Your task to perform on an android device: Open notification settings Image 0: 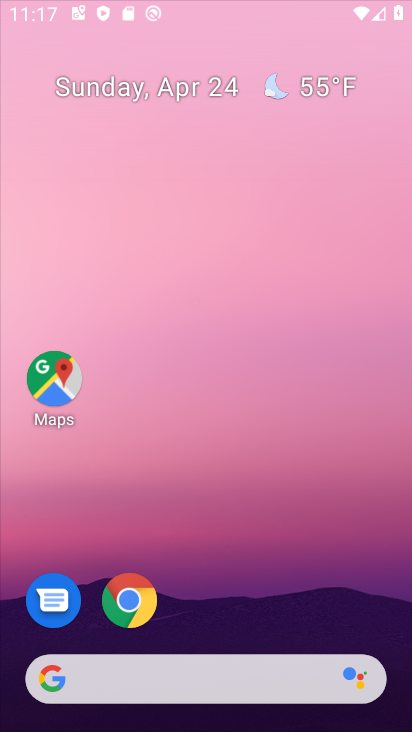
Step 0: click (225, 675)
Your task to perform on an android device: Open notification settings Image 1: 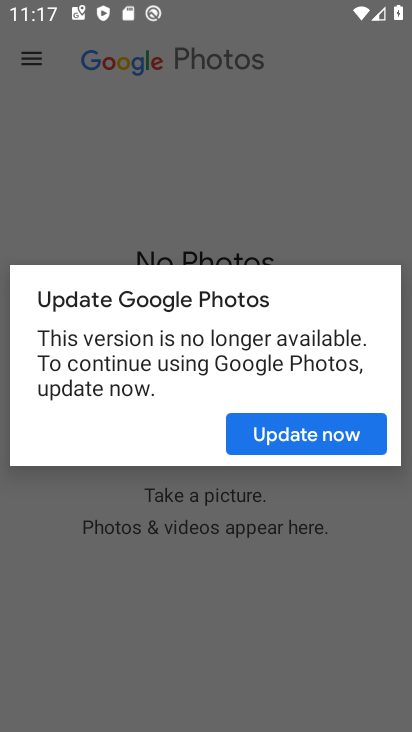
Step 1: press home button
Your task to perform on an android device: Open notification settings Image 2: 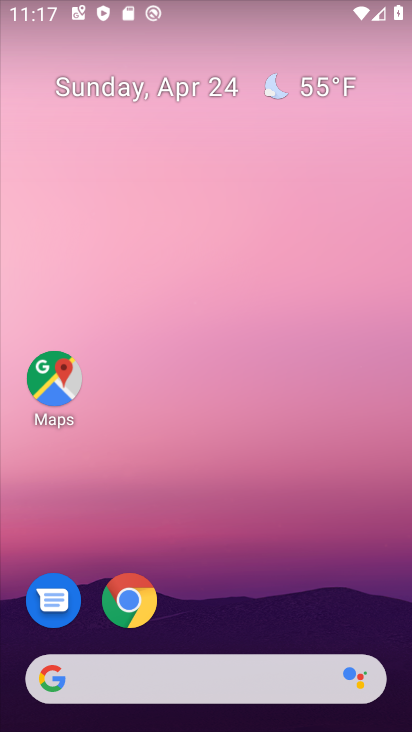
Step 2: drag from (247, 615) to (200, 119)
Your task to perform on an android device: Open notification settings Image 3: 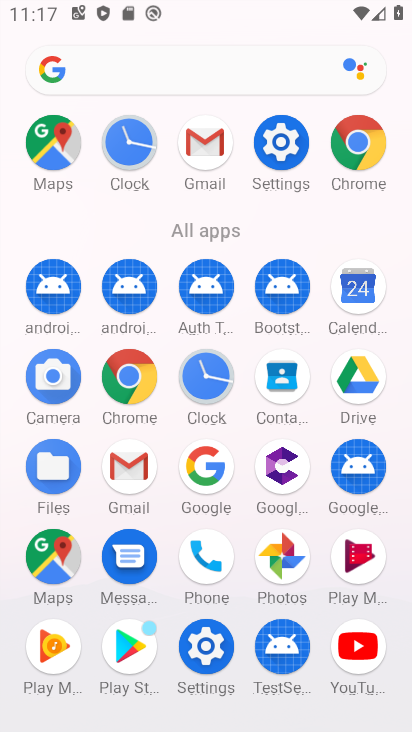
Step 3: click (303, 133)
Your task to perform on an android device: Open notification settings Image 4: 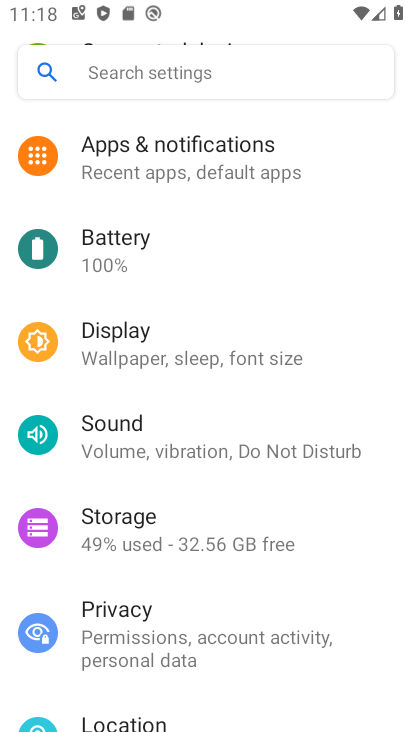
Step 4: click (213, 151)
Your task to perform on an android device: Open notification settings Image 5: 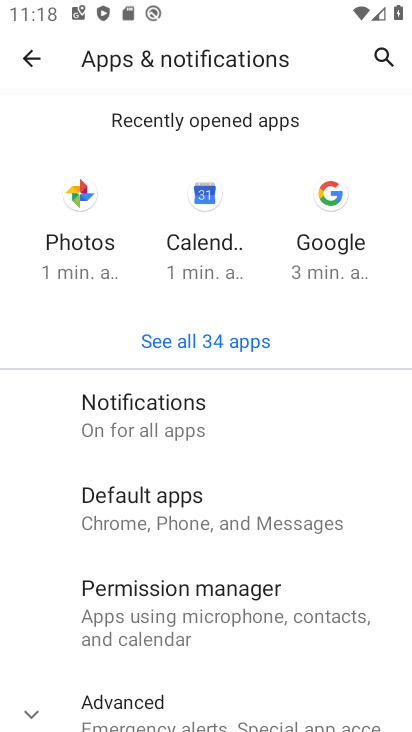
Step 5: task complete